Your task to perform on an android device: Turn on the flashlight Image 0: 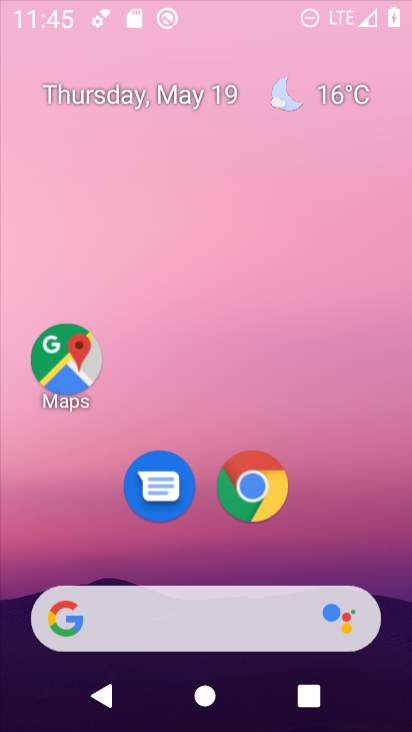
Step 0: press home button
Your task to perform on an android device: Turn on the flashlight Image 1: 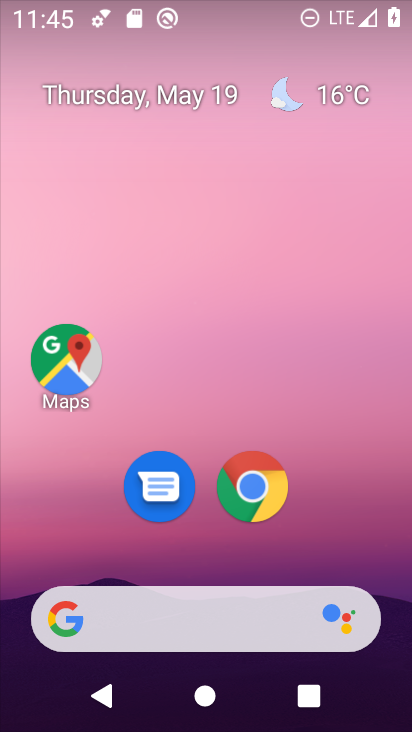
Step 1: drag from (334, 508) to (338, 31)
Your task to perform on an android device: Turn on the flashlight Image 2: 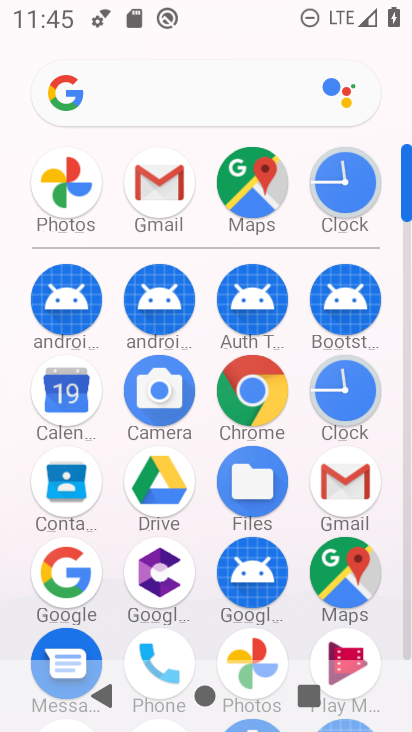
Step 2: click (339, 159)
Your task to perform on an android device: Turn on the flashlight Image 3: 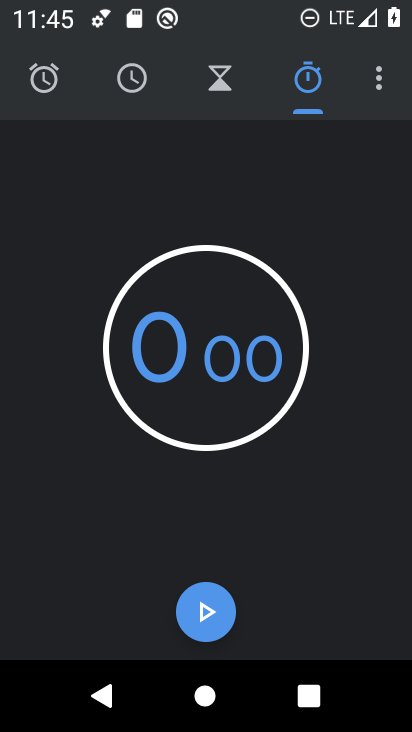
Step 3: press home button
Your task to perform on an android device: Turn on the flashlight Image 4: 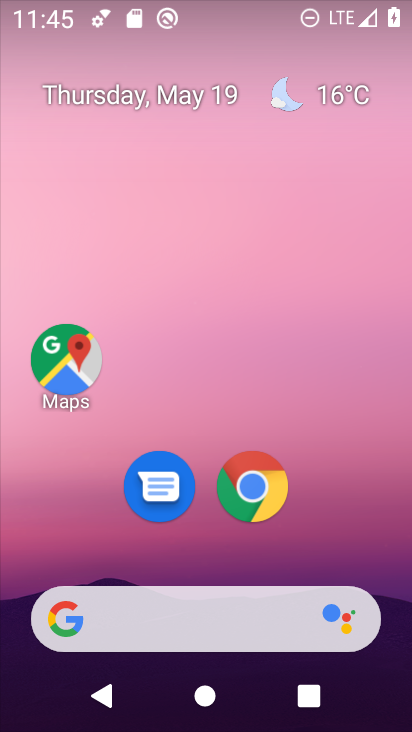
Step 4: drag from (352, 508) to (349, 161)
Your task to perform on an android device: Turn on the flashlight Image 5: 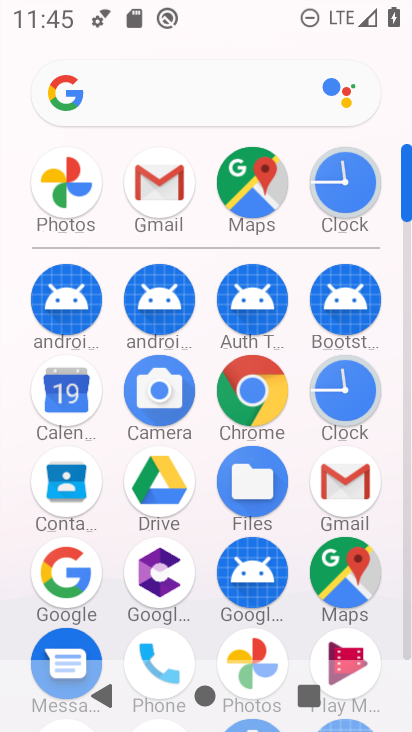
Step 5: click (407, 438)
Your task to perform on an android device: Turn on the flashlight Image 6: 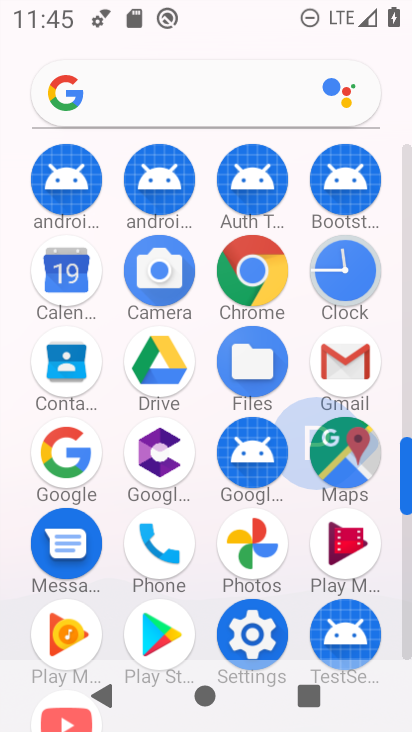
Step 6: click (407, 438)
Your task to perform on an android device: Turn on the flashlight Image 7: 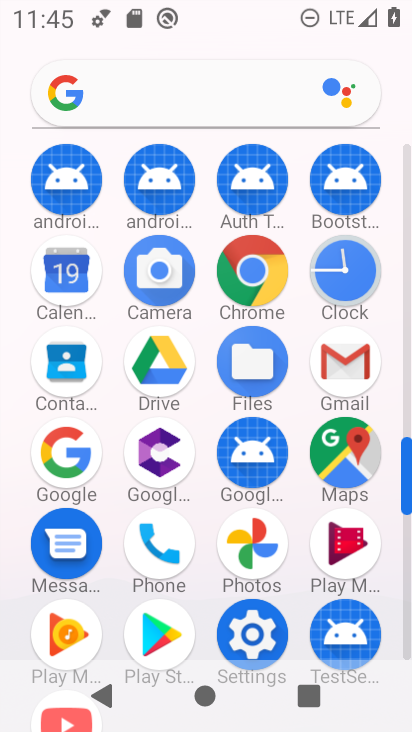
Step 7: click (256, 650)
Your task to perform on an android device: Turn on the flashlight Image 8: 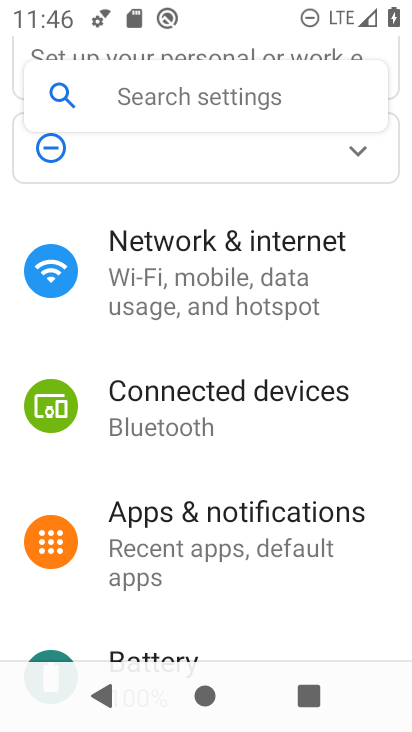
Step 8: task complete